Your task to perform on an android device: Open Google Chrome and open the bookmarks view Image 0: 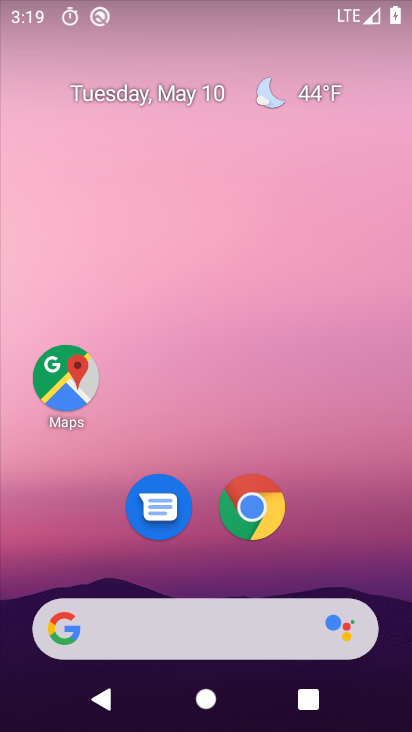
Step 0: click (255, 515)
Your task to perform on an android device: Open Google Chrome and open the bookmarks view Image 1: 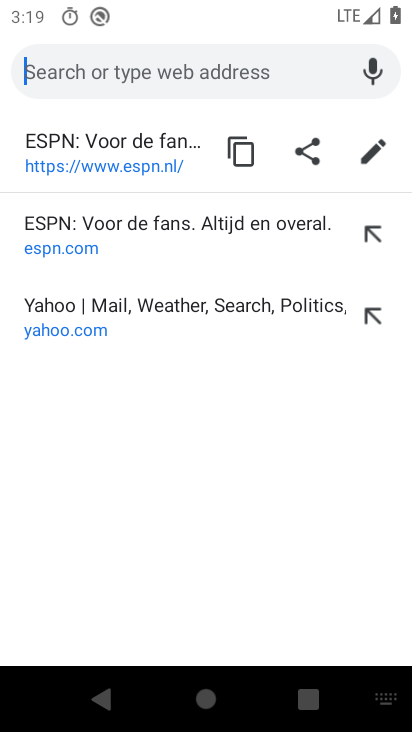
Step 1: drag from (237, 130) to (207, 444)
Your task to perform on an android device: Open Google Chrome and open the bookmarks view Image 2: 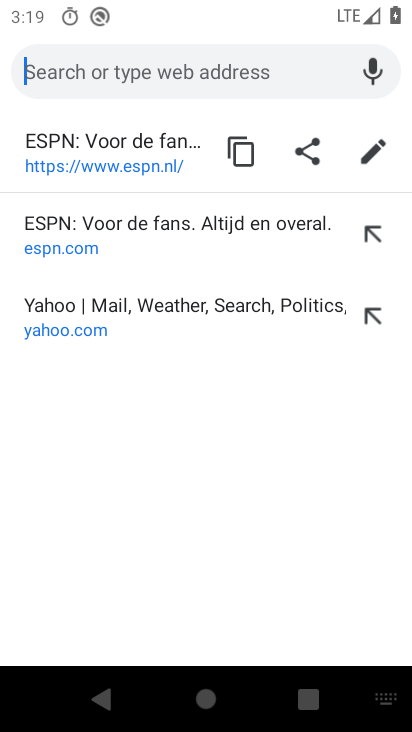
Step 2: drag from (181, 116) to (187, 491)
Your task to perform on an android device: Open Google Chrome and open the bookmarks view Image 3: 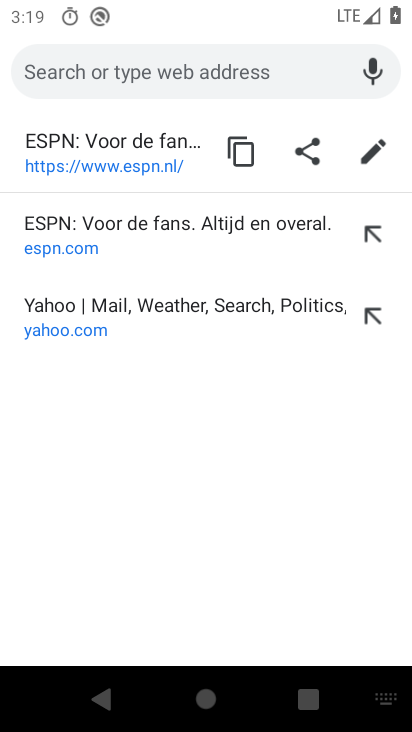
Step 3: press back button
Your task to perform on an android device: Open Google Chrome and open the bookmarks view Image 4: 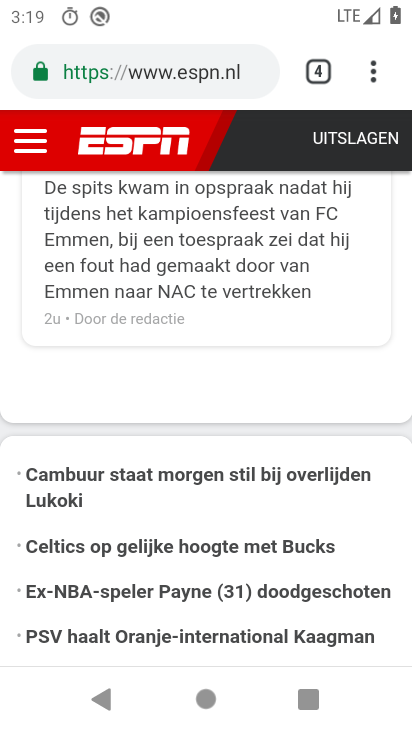
Step 4: click (362, 70)
Your task to perform on an android device: Open Google Chrome and open the bookmarks view Image 5: 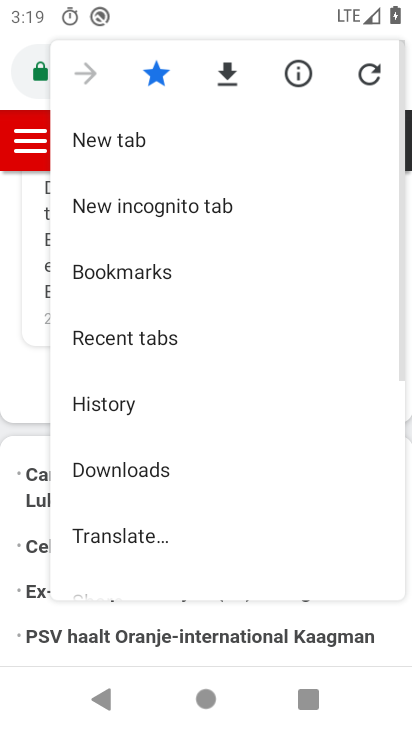
Step 5: click (172, 274)
Your task to perform on an android device: Open Google Chrome and open the bookmarks view Image 6: 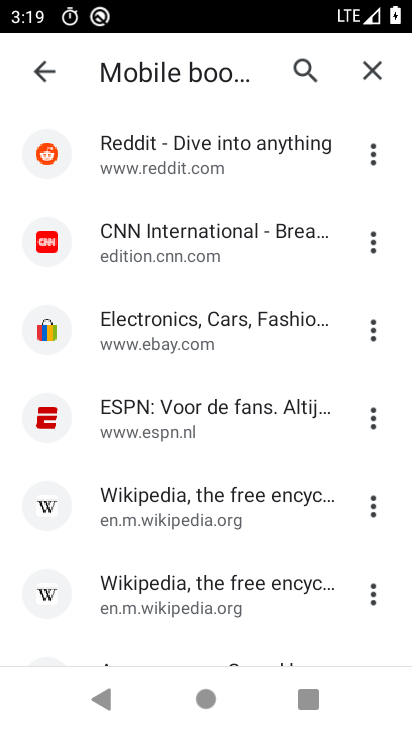
Step 6: task complete